Your task to perform on an android device: Search for acer nitro on ebay.com, select the first entry, add it to the cart, then select checkout. Image 0: 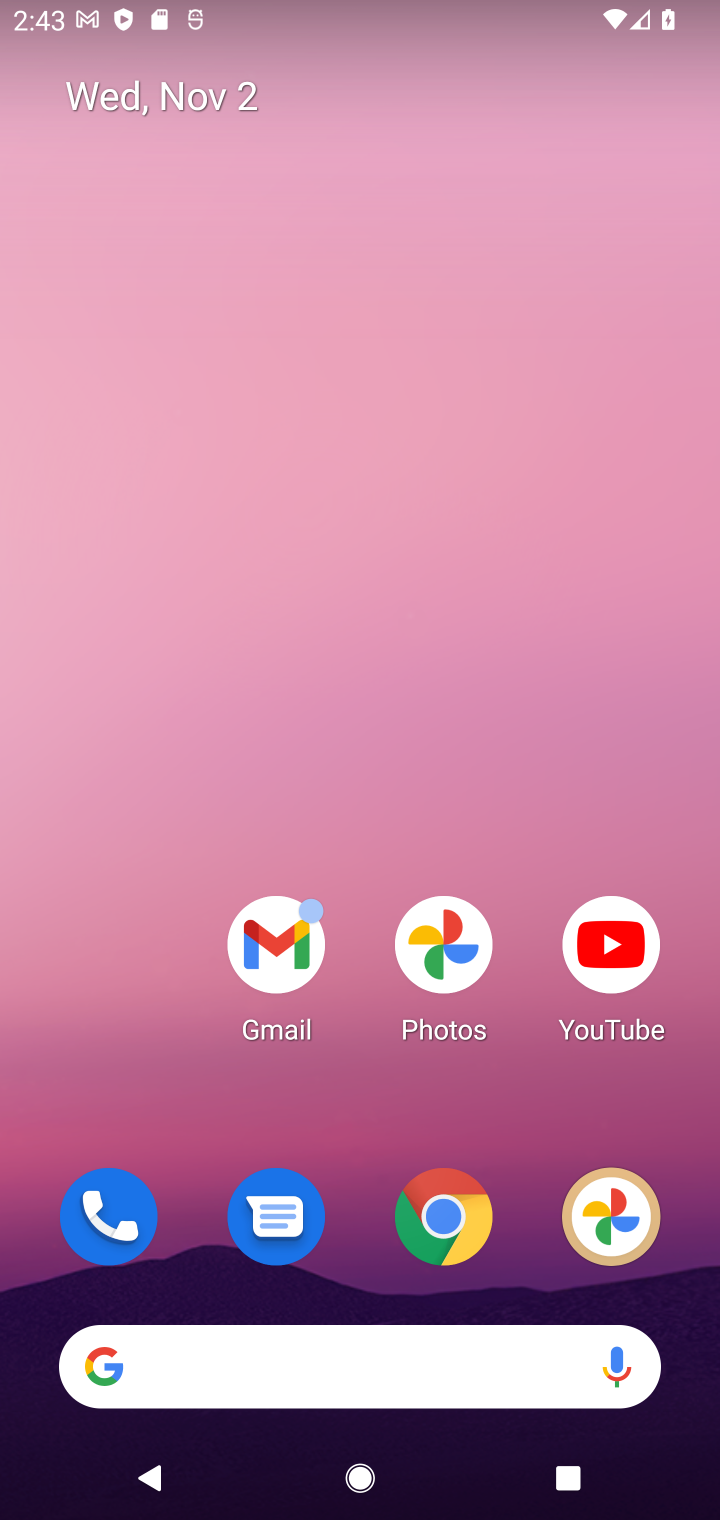
Step 0: click (467, 1211)
Your task to perform on an android device: Search for acer nitro on ebay.com, select the first entry, add it to the cart, then select checkout. Image 1: 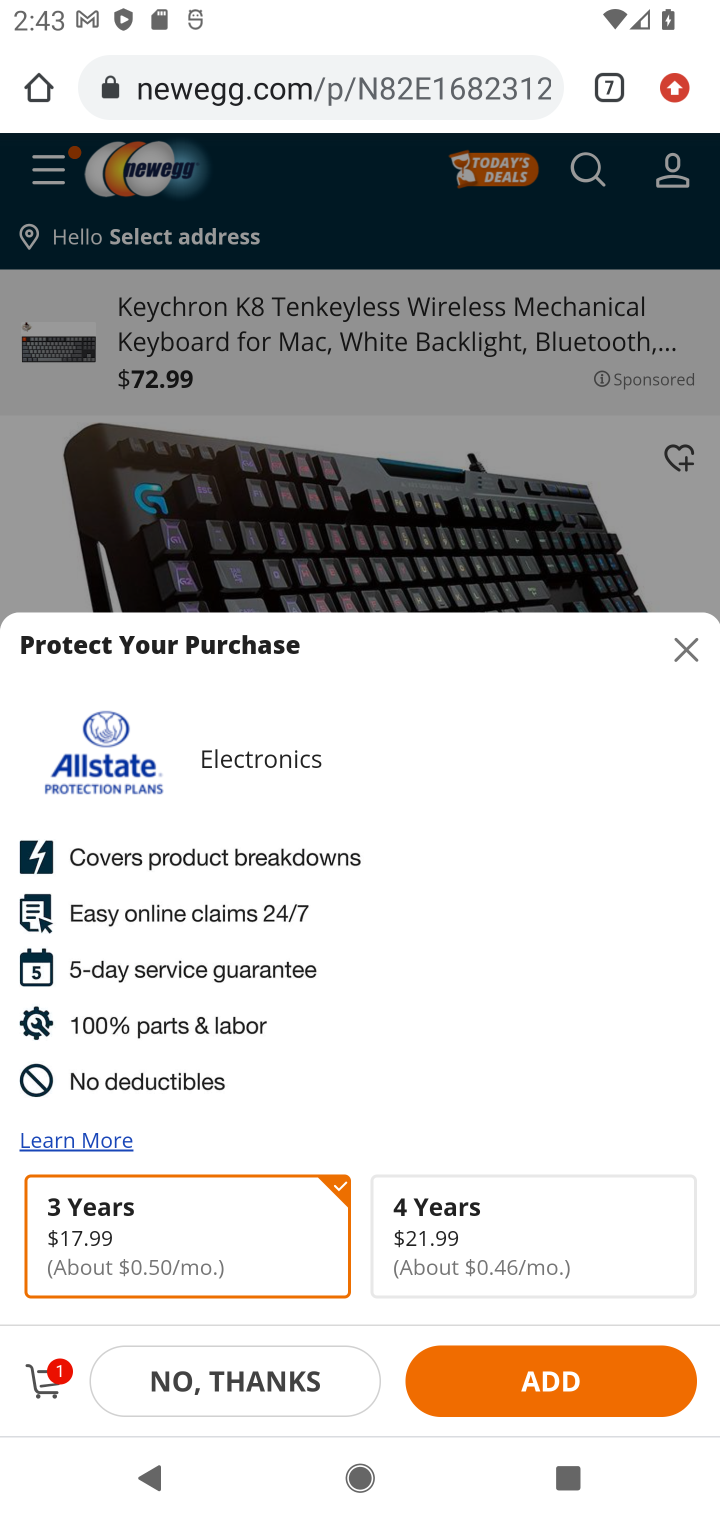
Step 1: click (613, 84)
Your task to perform on an android device: Search for acer nitro on ebay.com, select the first entry, add it to the cart, then select checkout. Image 2: 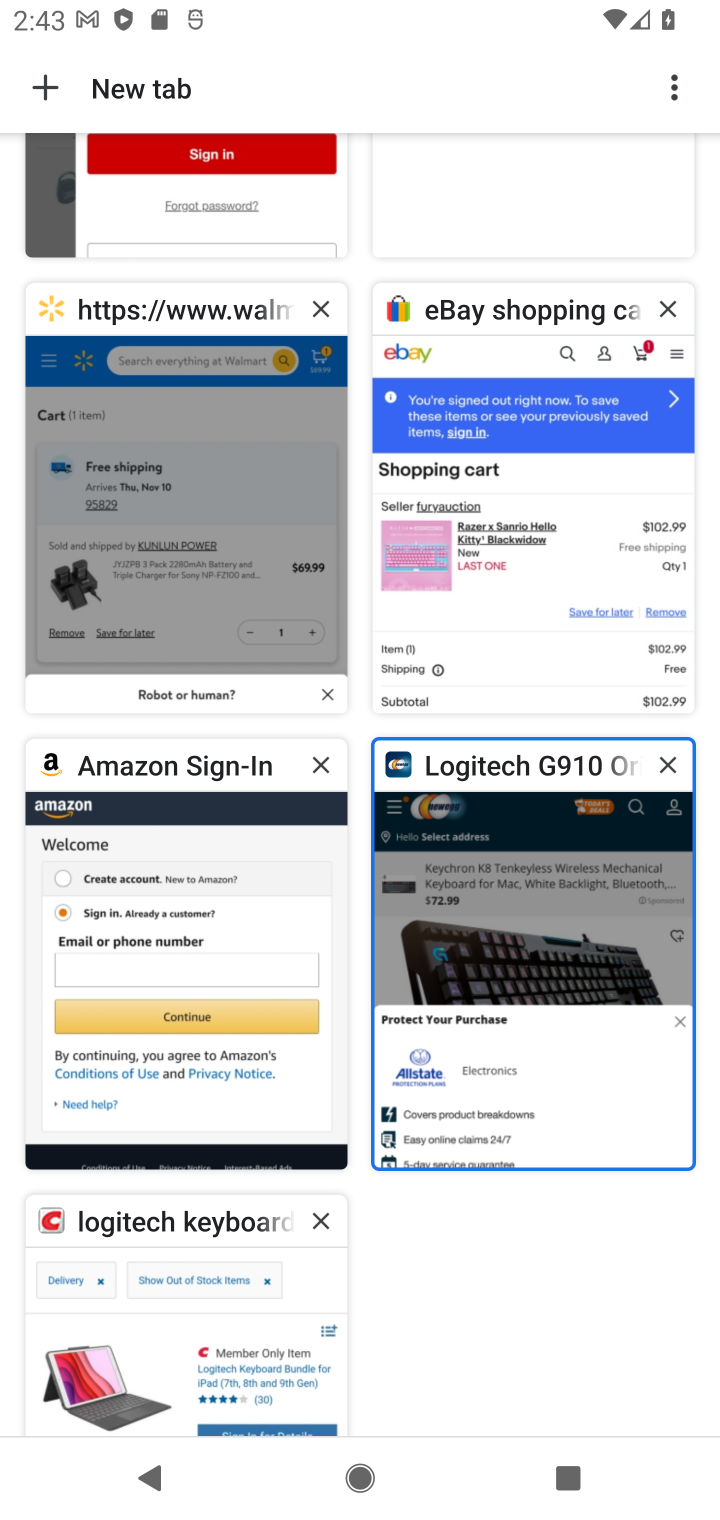
Step 2: click (434, 378)
Your task to perform on an android device: Search for acer nitro on ebay.com, select the first entry, add it to the cart, then select checkout. Image 3: 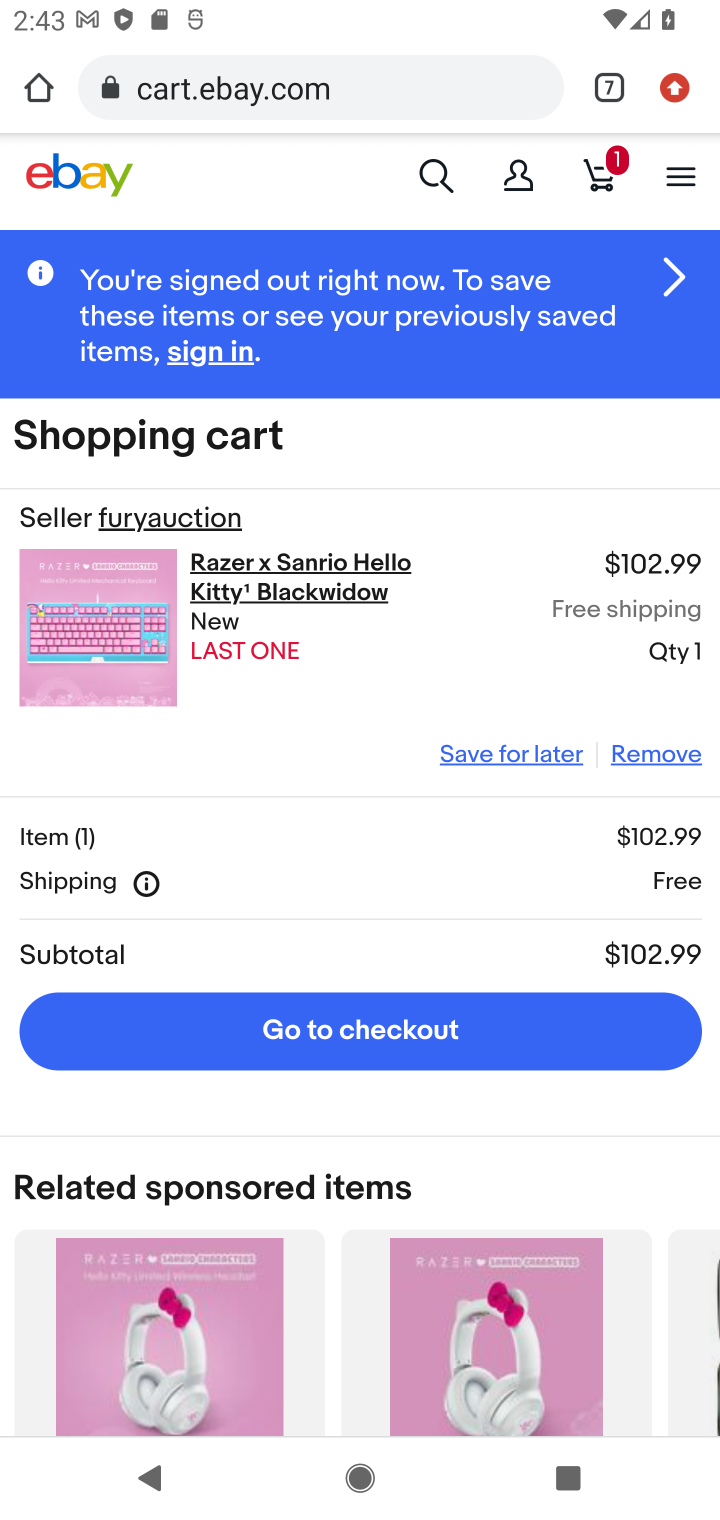
Step 3: click (429, 157)
Your task to perform on an android device: Search for acer nitro on ebay.com, select the first entry, add it to the cart, then select checkout. Image 4: 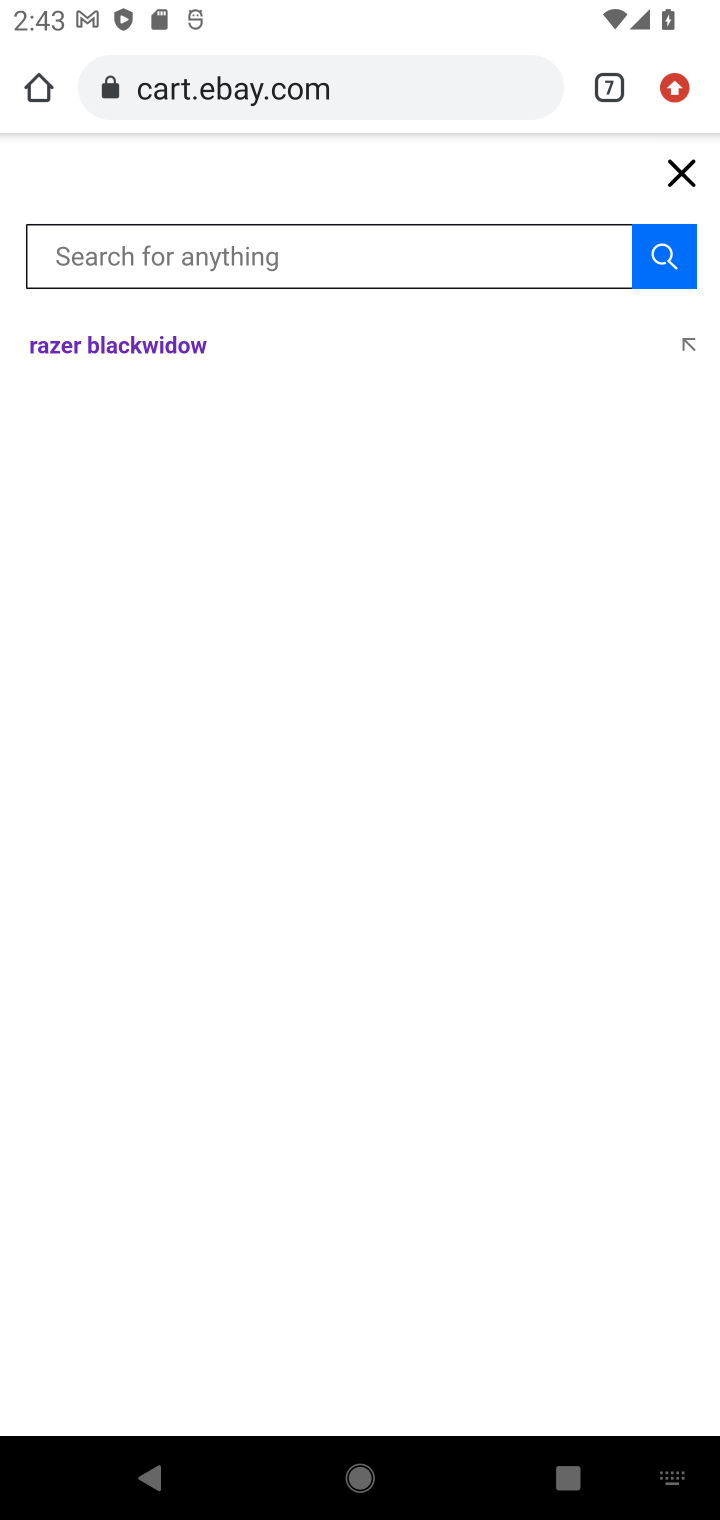
Step 4: type "acer nitro"
Your task to perform on an android device: Search for acer nitro on ebay.com, select the first entry, add it to the cart, then select checkout. Image 5: 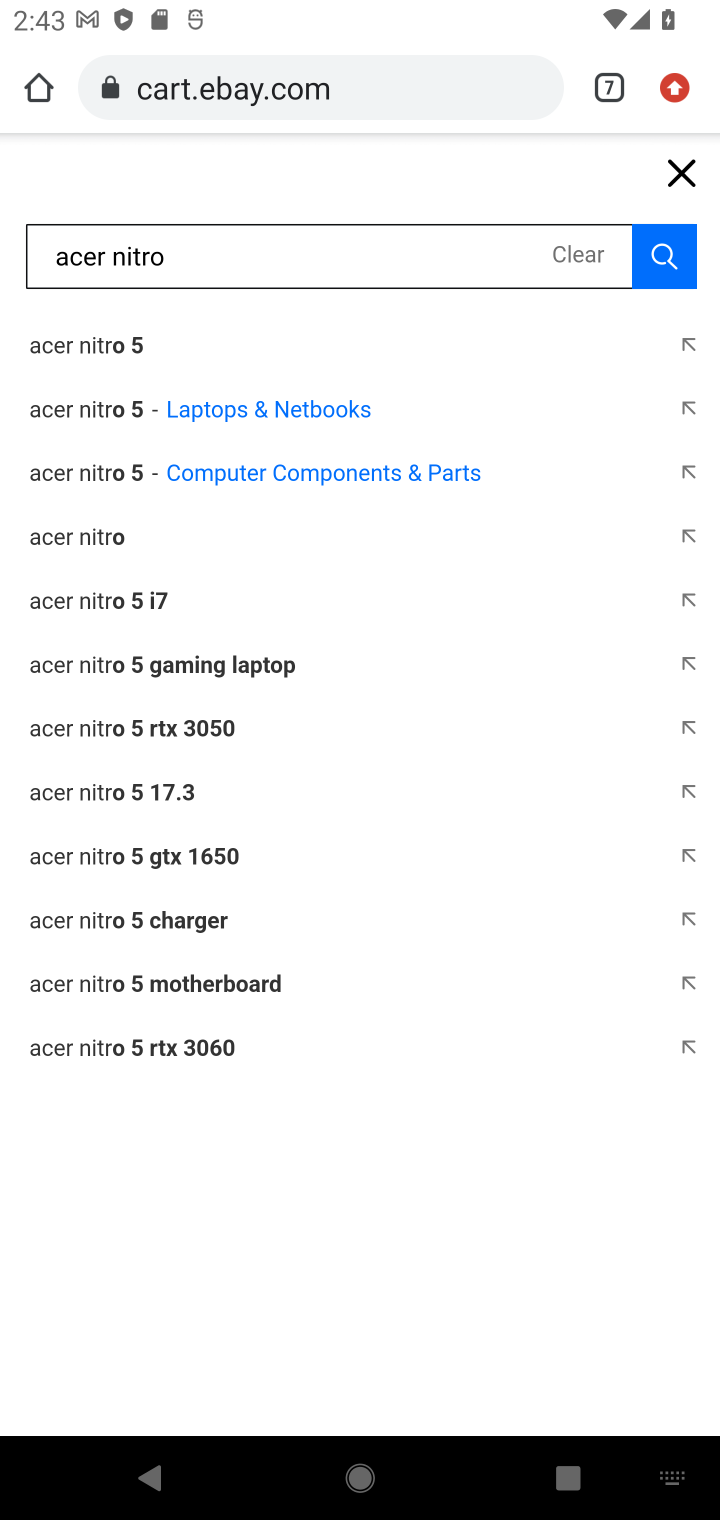
Step 5: click (101, 463)
Your task to perform on an android device: Search for acer nitro on ebay.com, select the first entry, add it to the cart, then select checkout. Image 6: 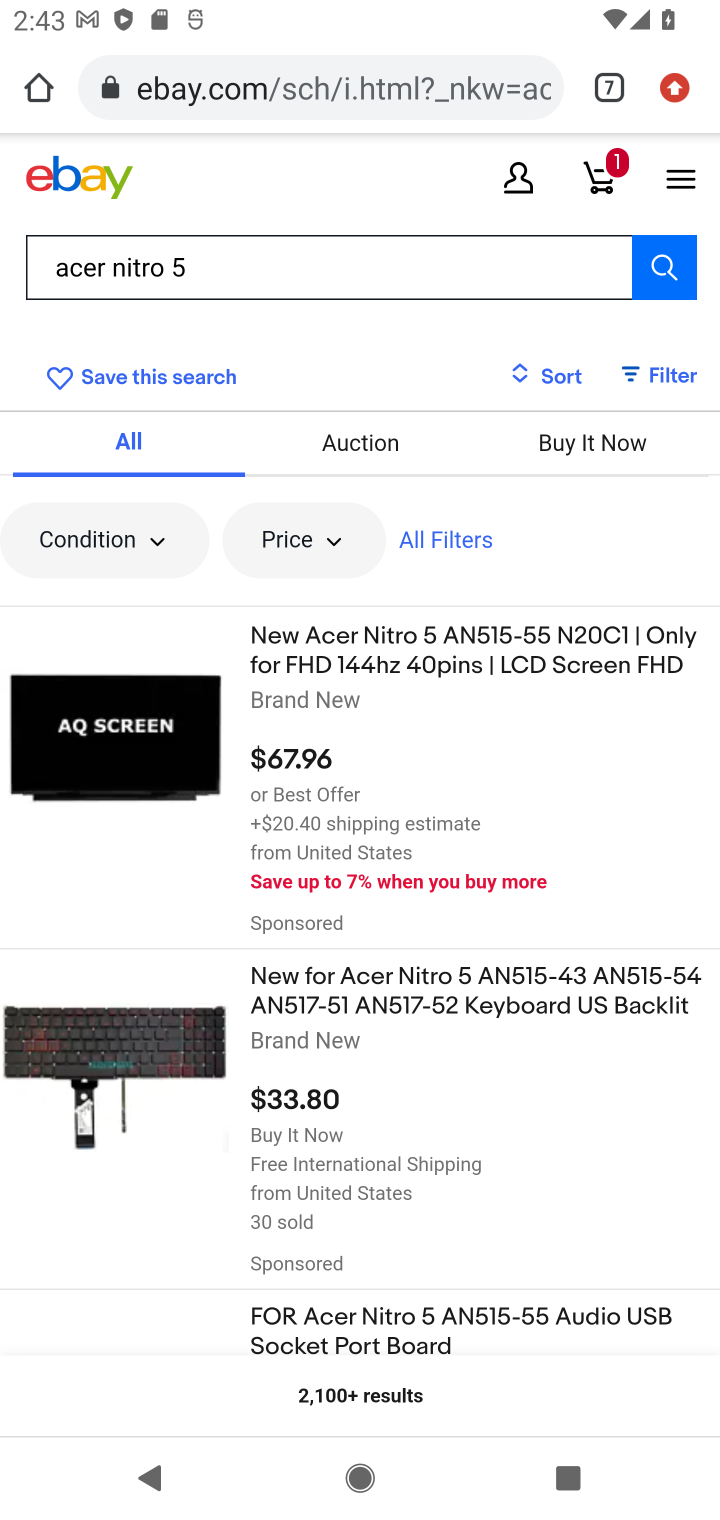
Step 6: click (346, 1006)
Your task to perform on an android device: Search for acer nitro on ebay.com, select the first entry, add it to the cart, then select checkout. Image 7: 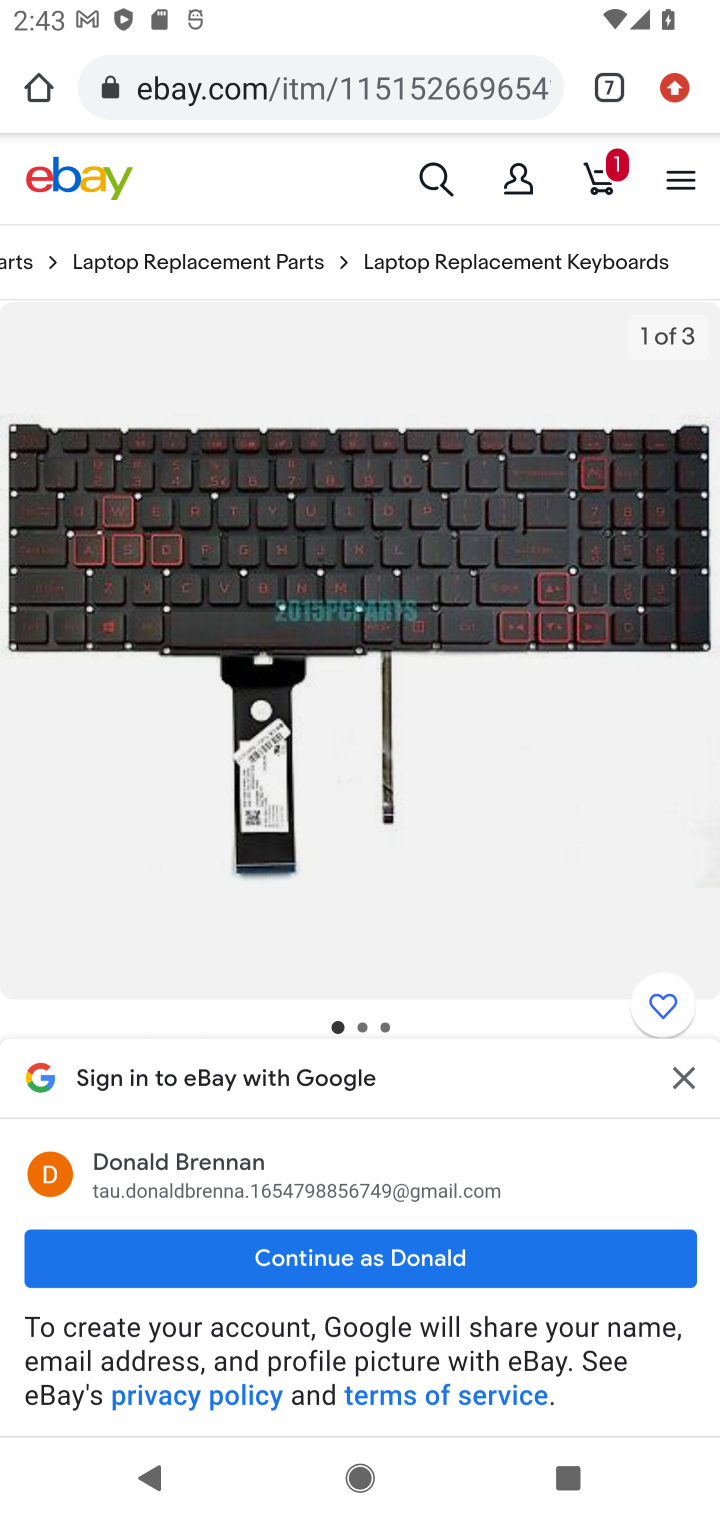
Step 7: click (682, 1157)
Your task to perform on an android device: Search for acer nitro on ebay.com, select the first entry, add it to the cart, then select checkout. Image 8: 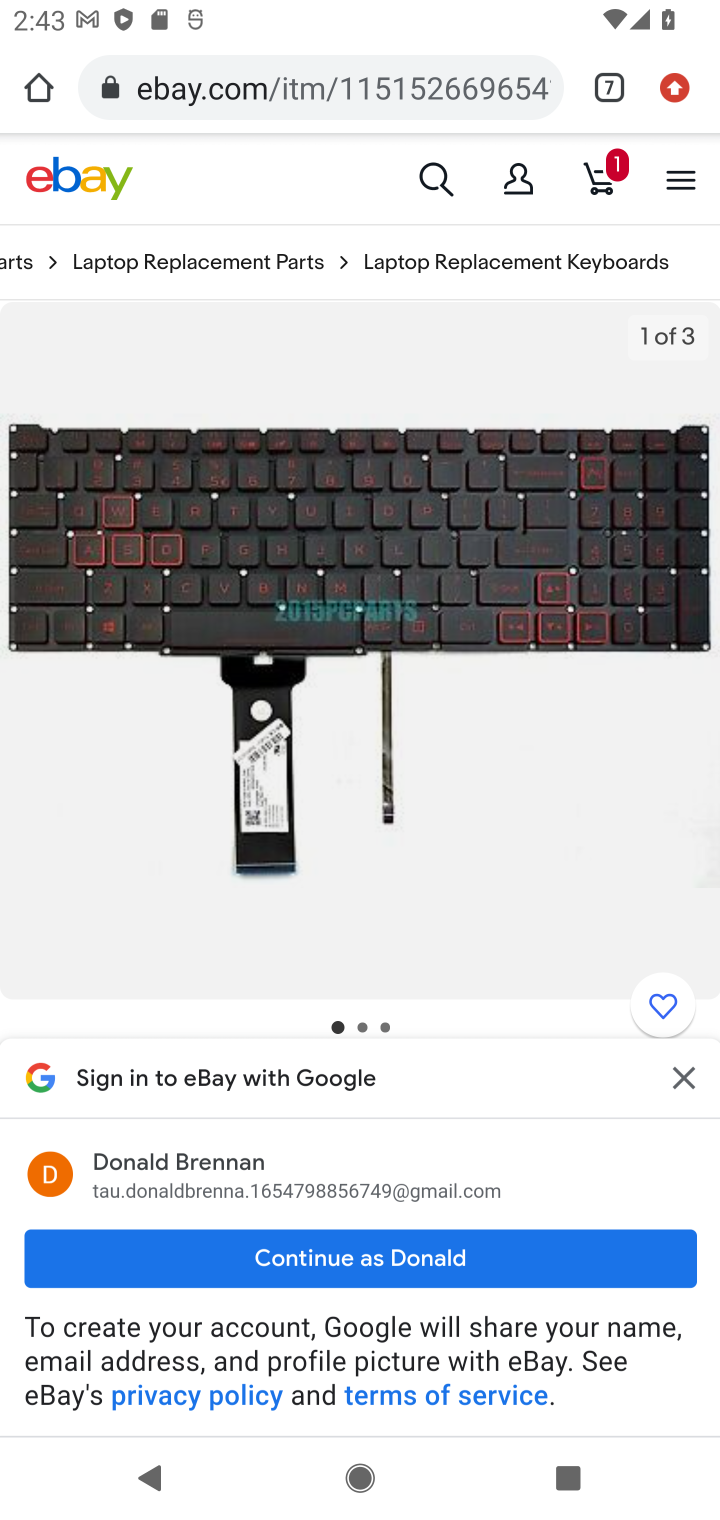
Step 8: click (690, 1071)
Your task to perform on an android device: Search for acer nitro on ebay.com, select the first entry, add it to the cart, then select checkout. Image 9: 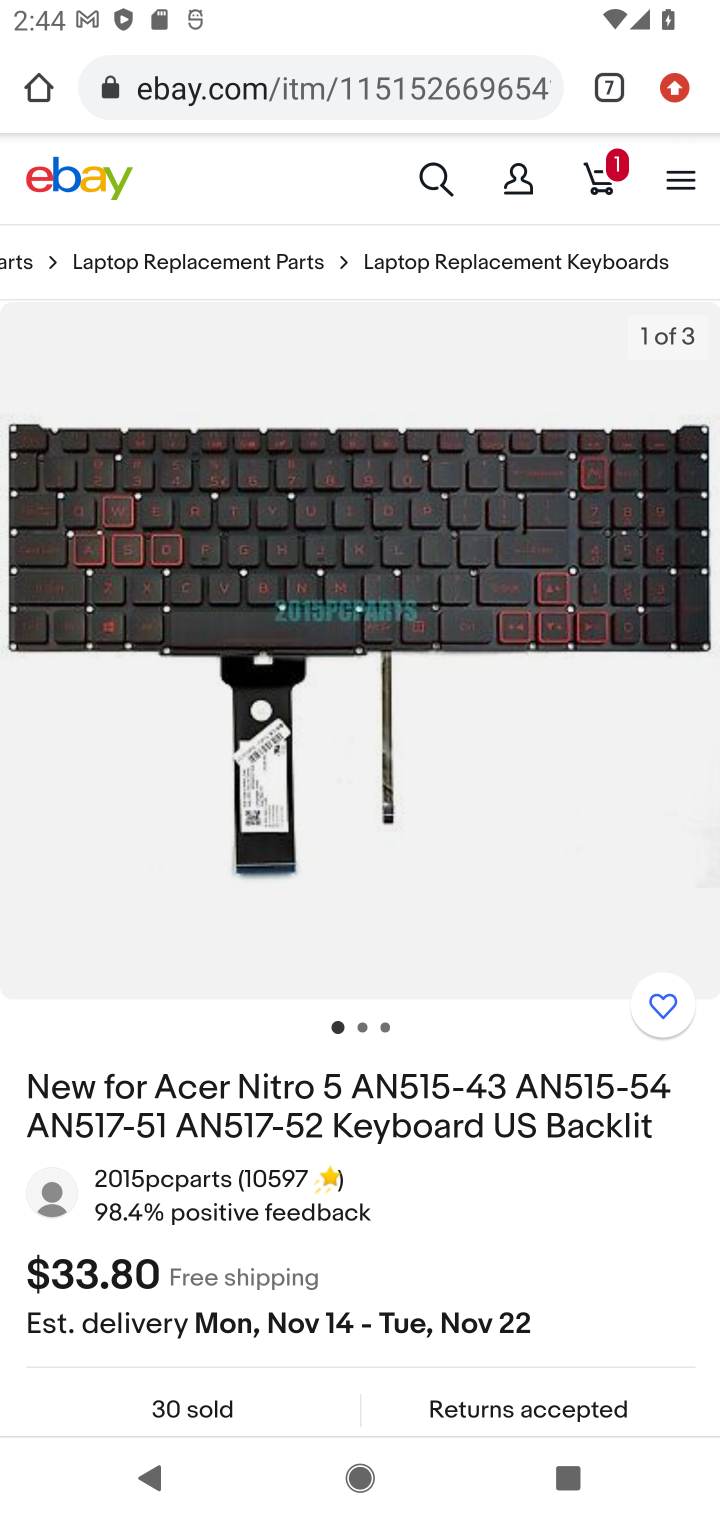
Step 9: drag from (392, 1275) to (619, 168)
Your task to perform on an android device: Search for acer nitro on ebay.com, select the first entry, add it to the cart, then select checkout. Image 10: 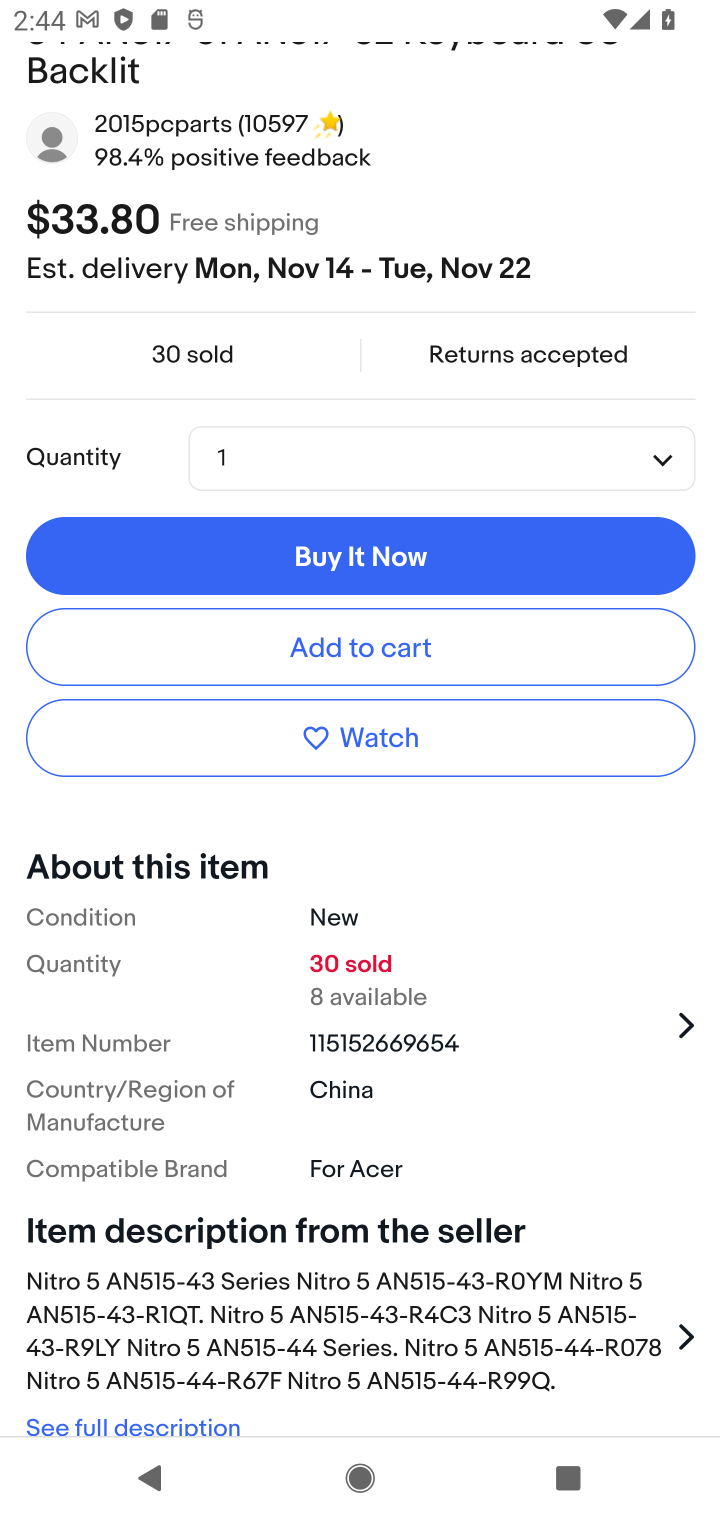
Step 10: click (364, 659)
Your task to perform on an android device: Search for acer nitro on ebay.com, select the first entry, add it to the cart, then select checkout. Image 11: 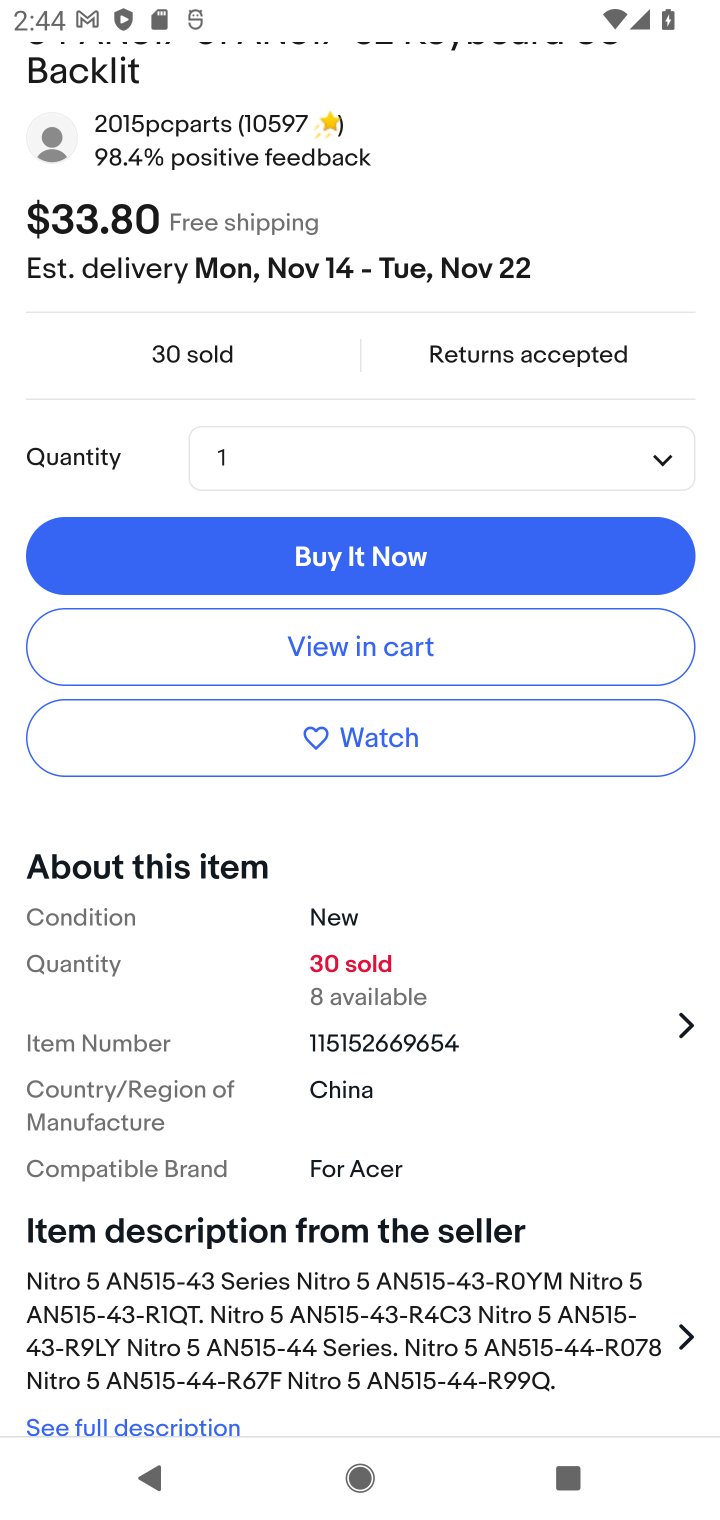
Step 11: task complete